Your task to perform on an android device: all mails in gmail Image 0: 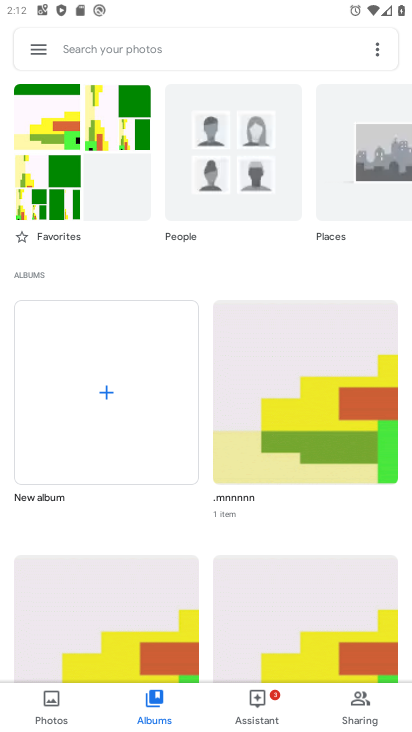
Step 0: press home button
Your task to perform on an android device: all mails in gmail Image 1: 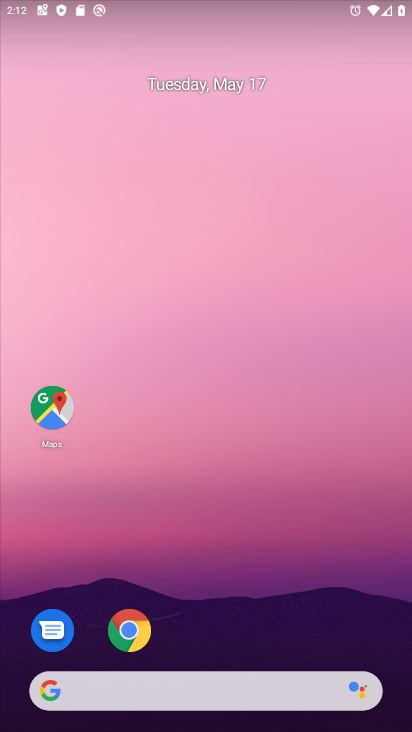
Step 1: drag from (332, 601) to (309, 208)
Your task to perform on an android device: all mails in gmail Image 2: 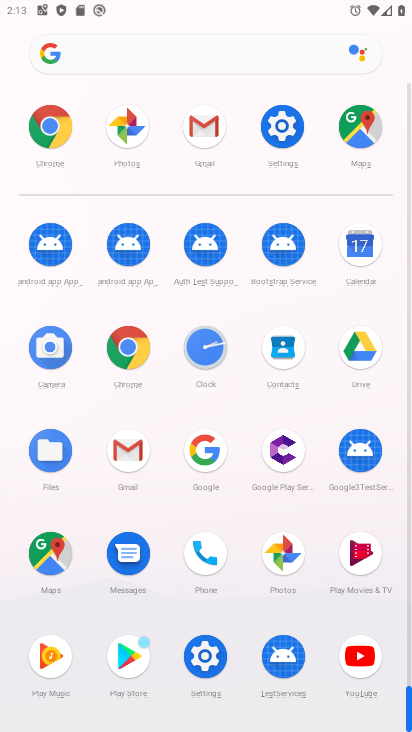
Step 2: click (214, 137)
Your task to perform on an android device: all mails in gmail Image 3: 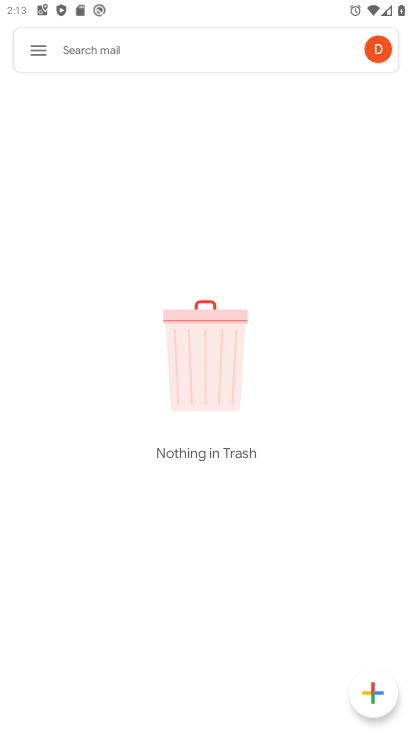
Step 3: click (40, 53)
Your task to perform on an android device: all mails in gmail Image 4: 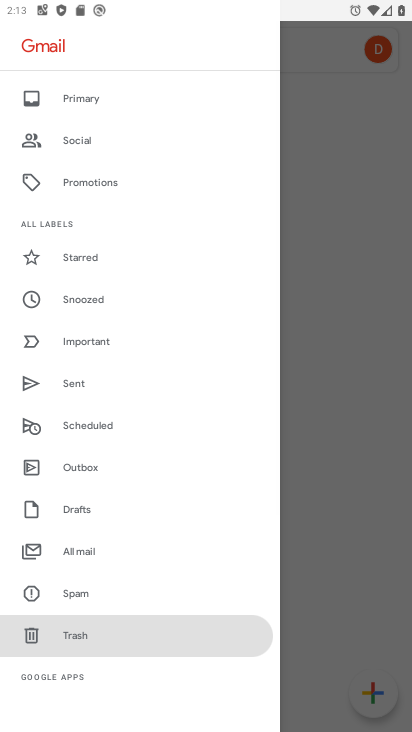
Step 4: click (105, 556)
Your task to perform on an android device: all mails in gmail Image 5: 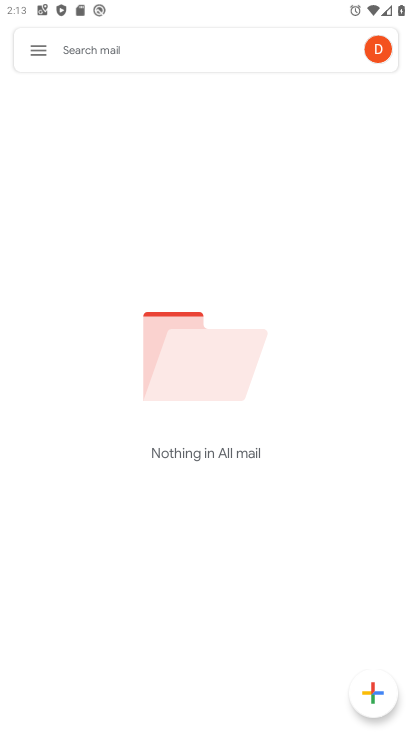
Step 5: task complete